Your task to perform on an android device: change text size in settings app Image 0: 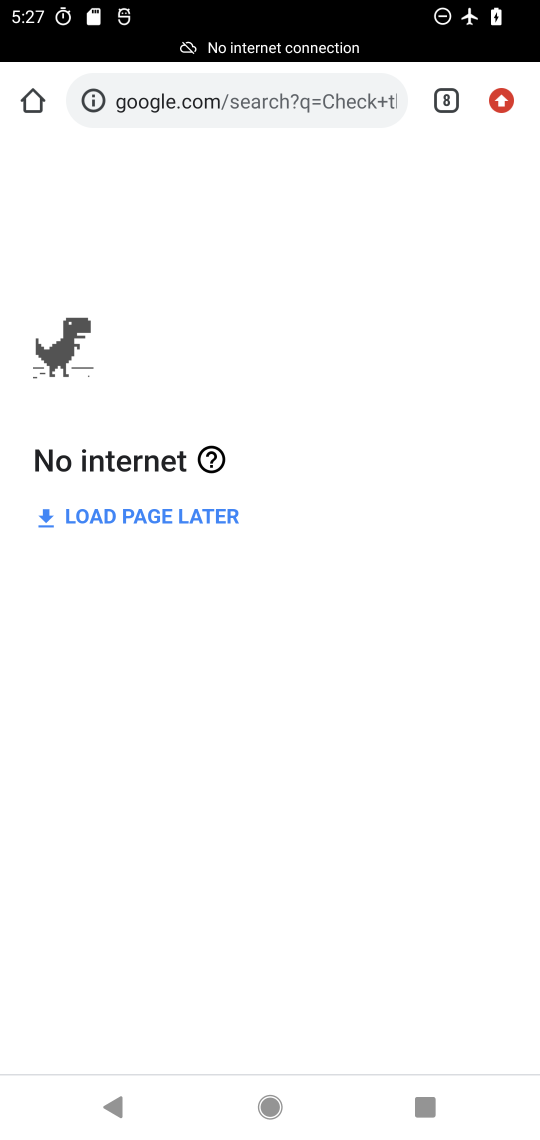
Step 0: press home button
Your task to perform on an android device: change text size in settings app Image 1: 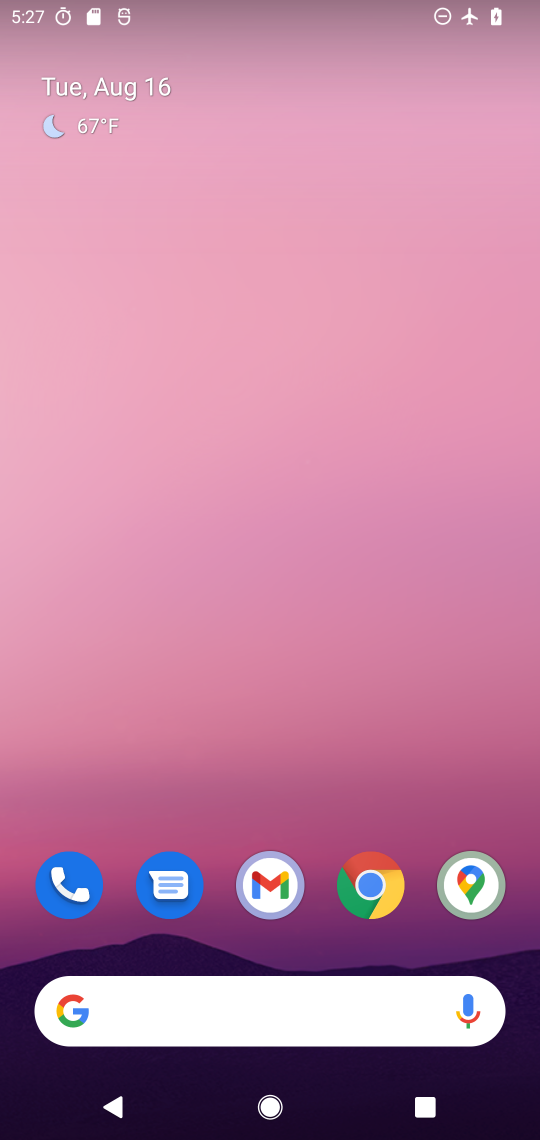
Step 1: drag from (256, 989) to (419, 64)
Your task to perform on an android device: change text size in settings app Image 2: 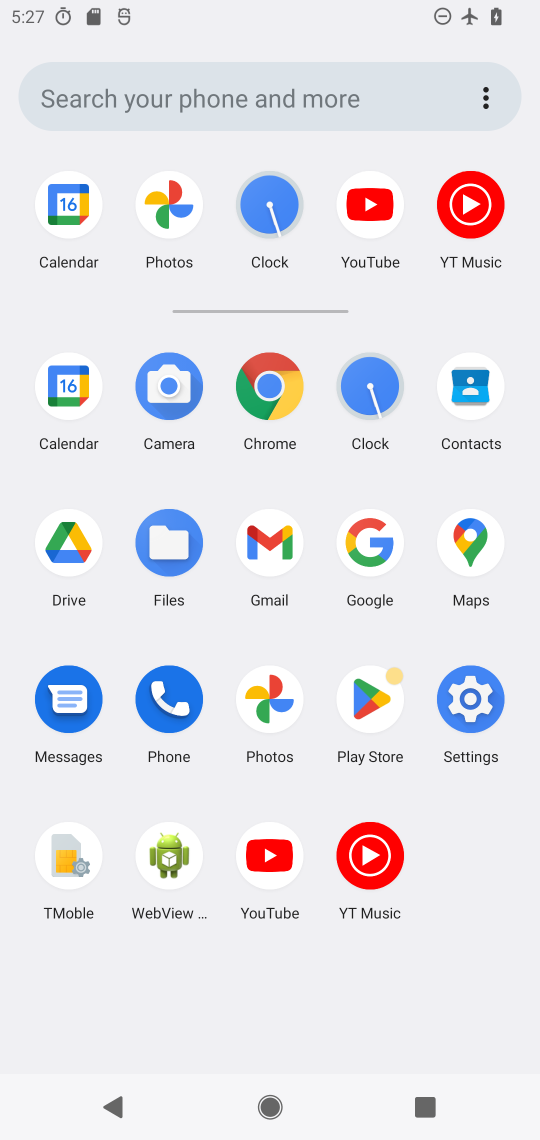
Step 2: click (467, 695)
Your task to perform on an android device: change text size in settings app Image 3: 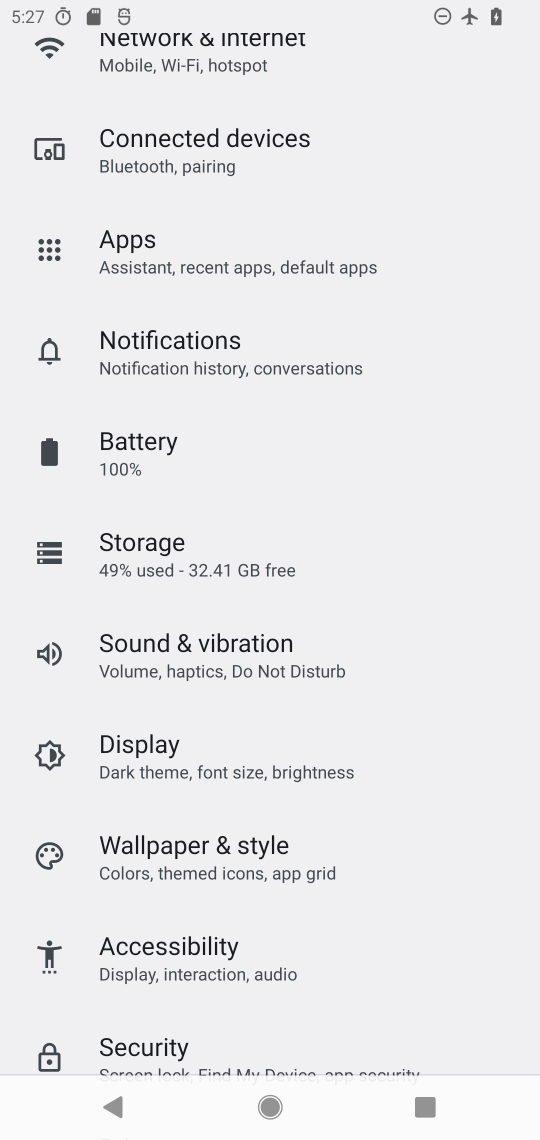
Step 3: drag from (253, 1011) to (226, 150)
Your task to perform on an android device: change text size in settings app Image 4: 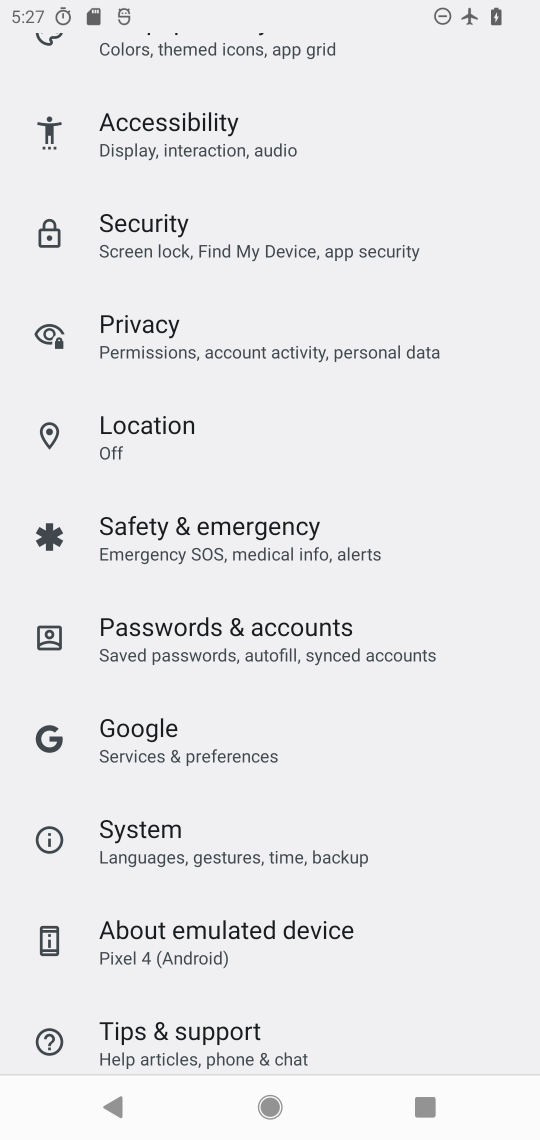
Step 4: click (227, 833)
Your task to perform on an android device: change text size in settings app Image 5: 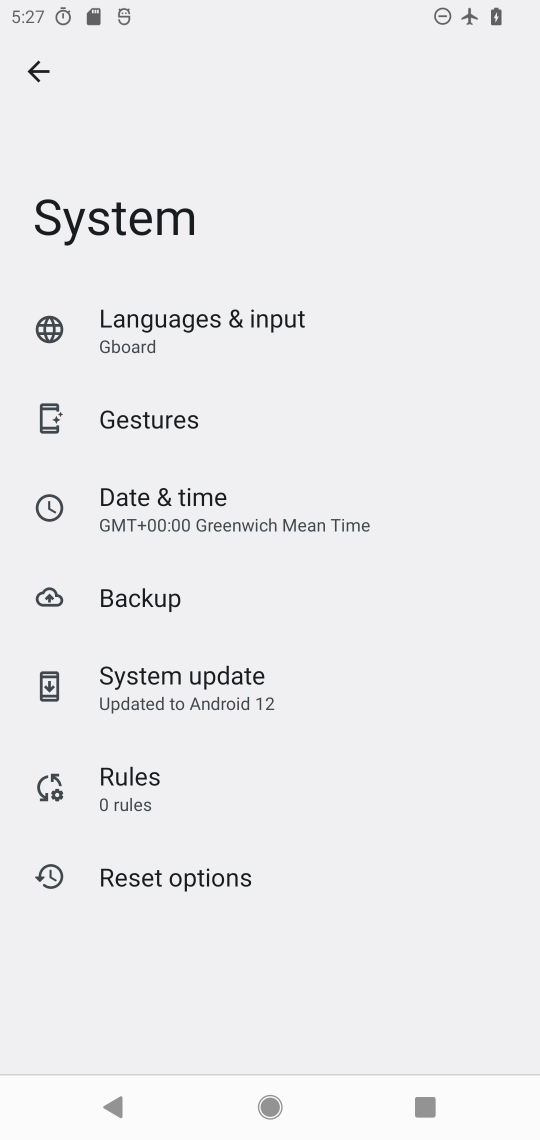
Step 5: click (60, 62)
Your task to perform on an android device: change text size in settings app Image 6: 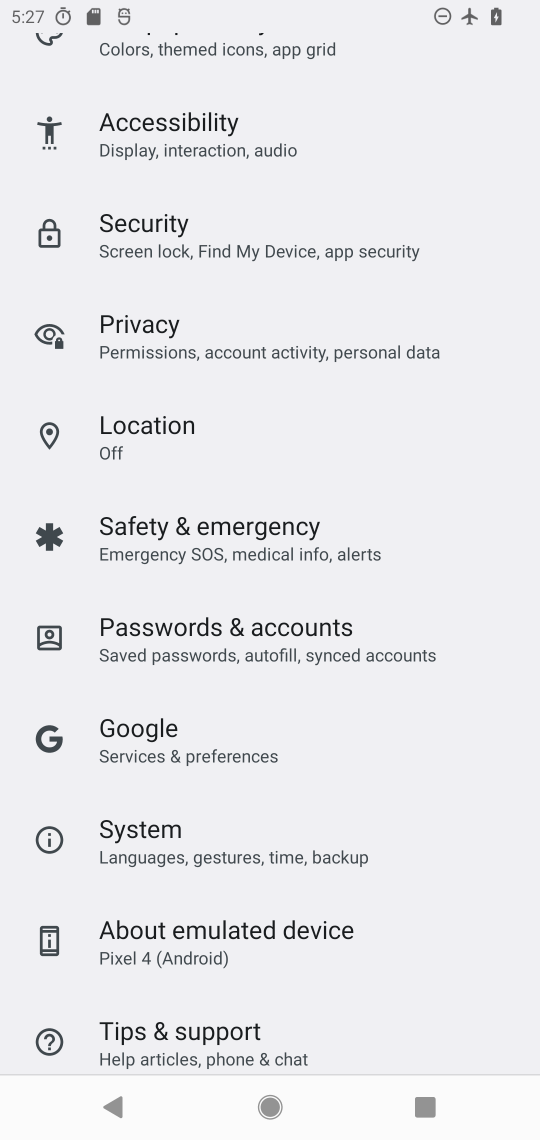
Step 6: click (195, 151)
Your task to perform on an android device: change text size in settings app Image 7: 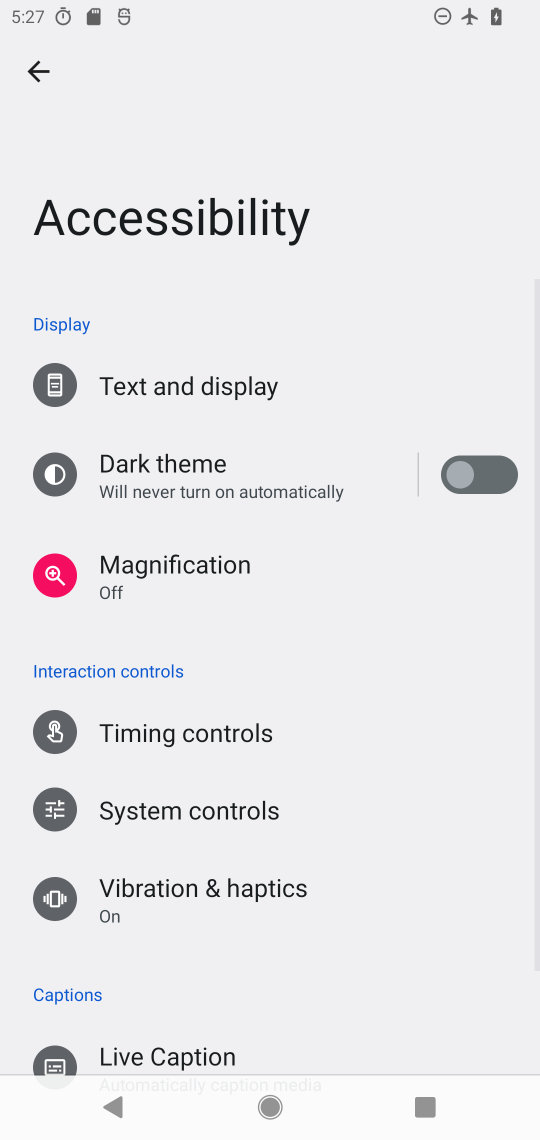
Step 7: click (182, 356)
Your task to perform on an android device: change text size in settings app Image 8: 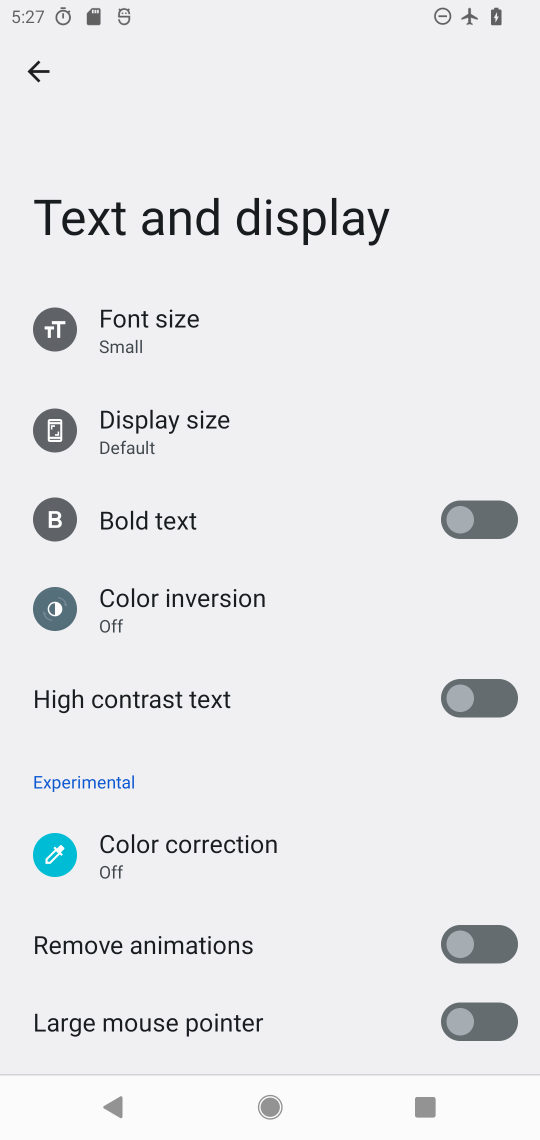
Step 8: click (153, 350)
Your task to perform on an android device: change text size in settings app Image 9: 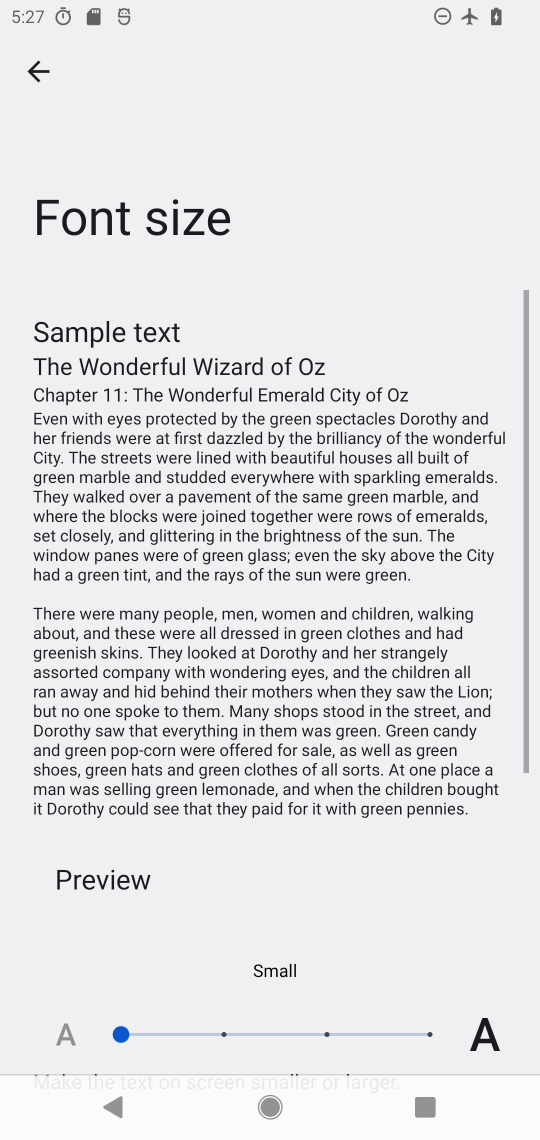
Step 9: click (306, 1027)
Your task to perform on an android device: change text size in settings app Image 10: 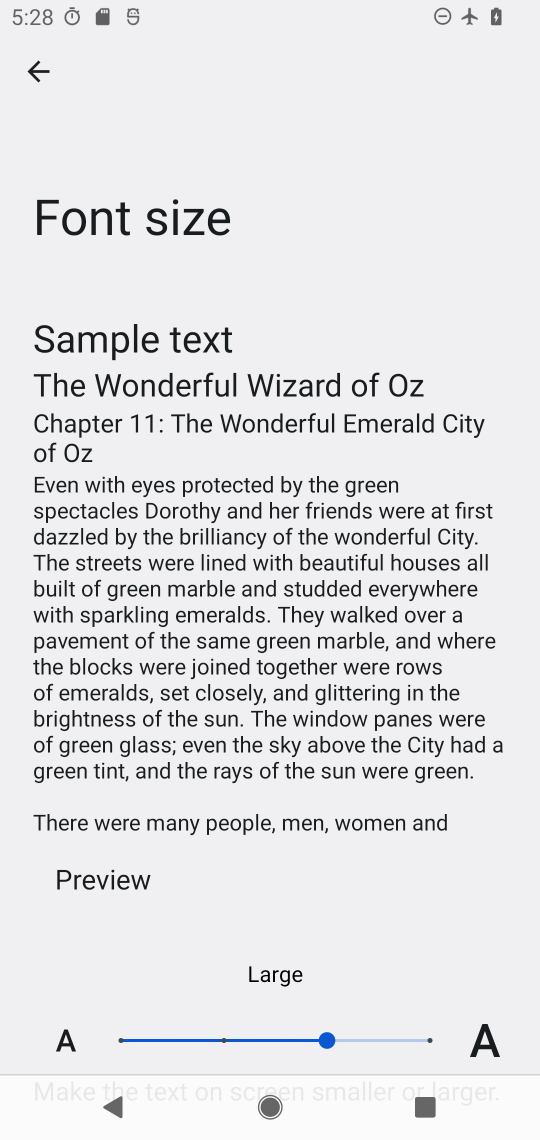
Step 10: task complete